Your task to perform on an android device: Turn on the flashlight Image 0: 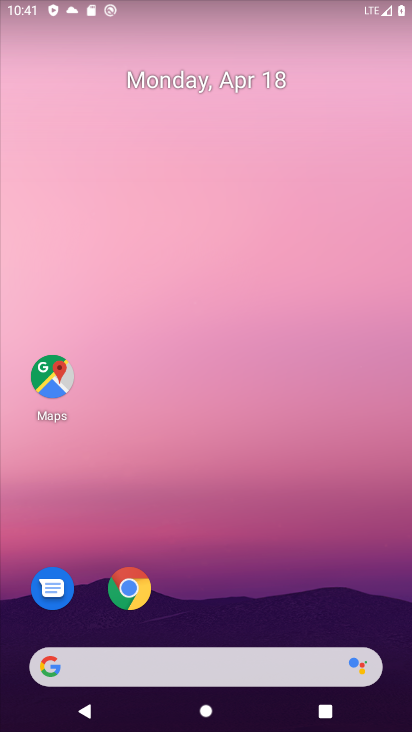
Step 0: drag from (212, 17) to (232, 396)
Your task to perform on an android device: Turn on the flashlight Image 1: 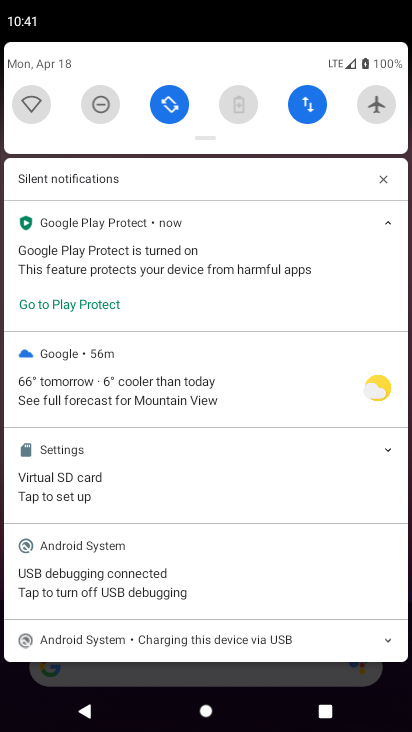
Step 1: drag from (209, 140) to (158, 617)
Your task to perform on an android device: Turn on the flashlight Image 2: 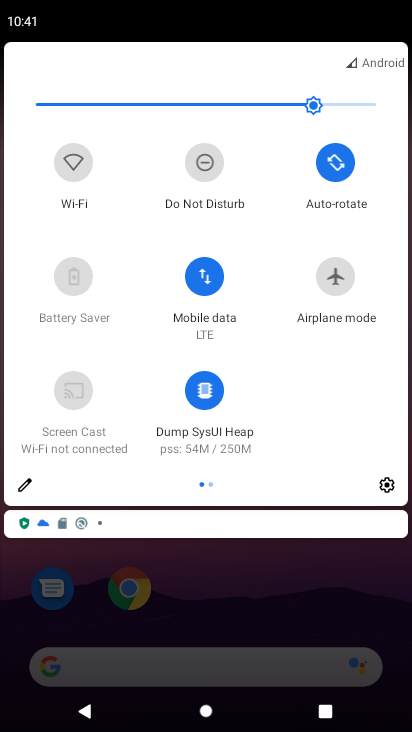
Step 2: click (22, 482)
Your task to perform on an android device: Turn on the flashlight Image 3: 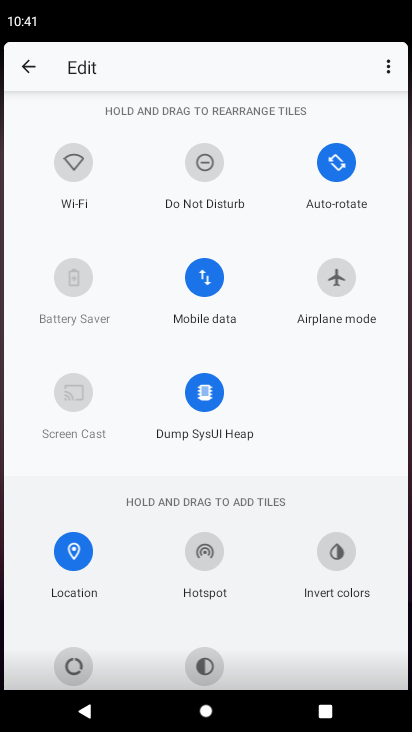
Step 3: task complete